Your task to perform on an android device: Turn on the flashlight Image 0: 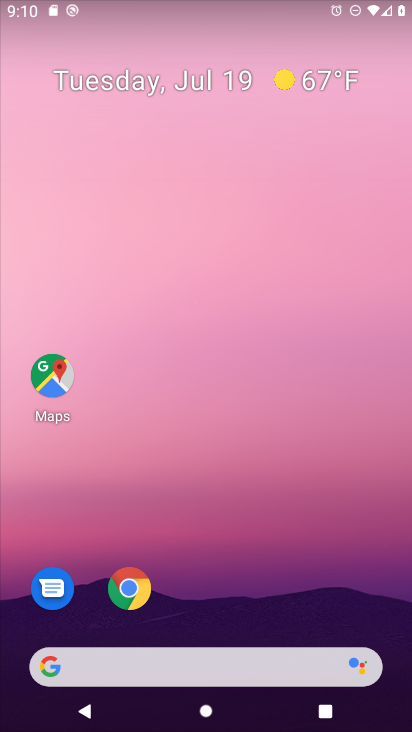
Step 0: drag from (254, 7) to (280, 369)
Your task to perform on an android device: Turn on the flashlight Image 1: 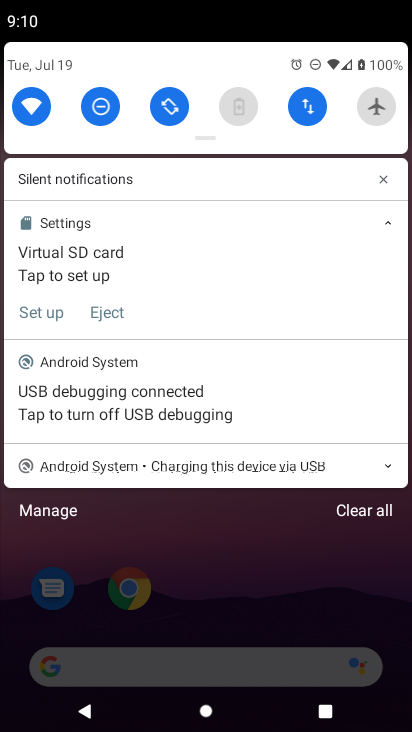
Step 1: task complete